Your task to perform on an android device: Go to display settings Image 0: 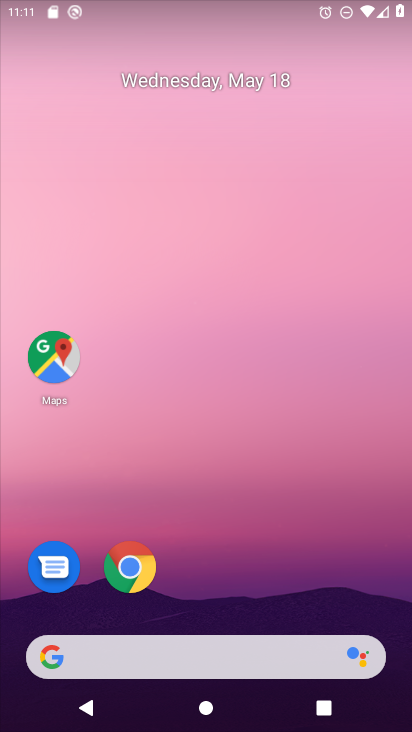
Step 0: drag from (237, 678) to (222, 255)
Your task to perform on an android device: Go to display settings Image 1: 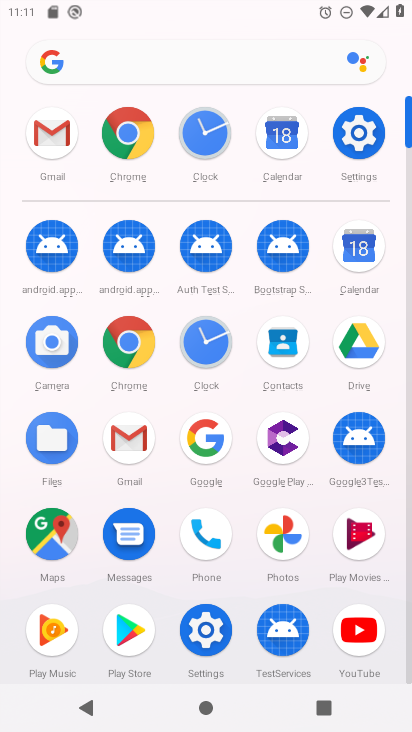
Step 1: click (350, 143)
Your task to perform on an android device: Go to display settings Image 2: 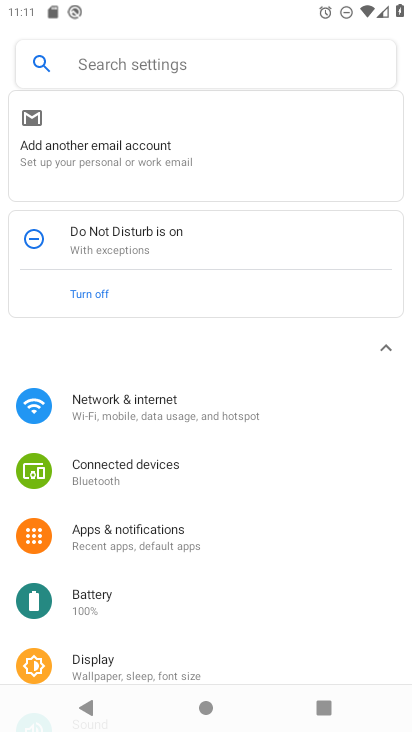
Step 2: click (110, 652)
Your task to perform on an android device: Go to display settings Image 3: 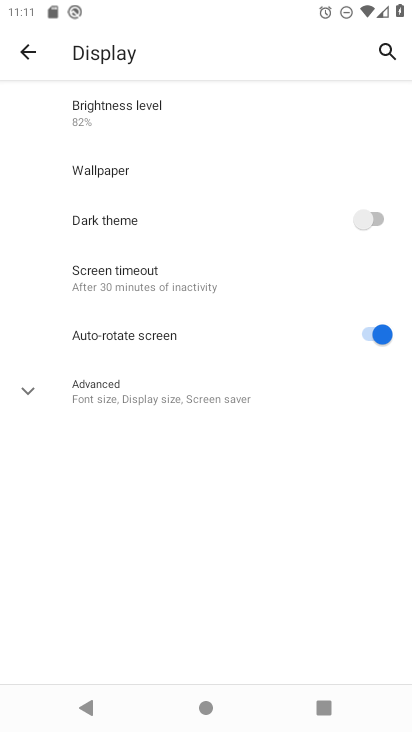
Step 3: task complete